Your task to perform on an android device: delete browsing data in the chrome app Image 0: 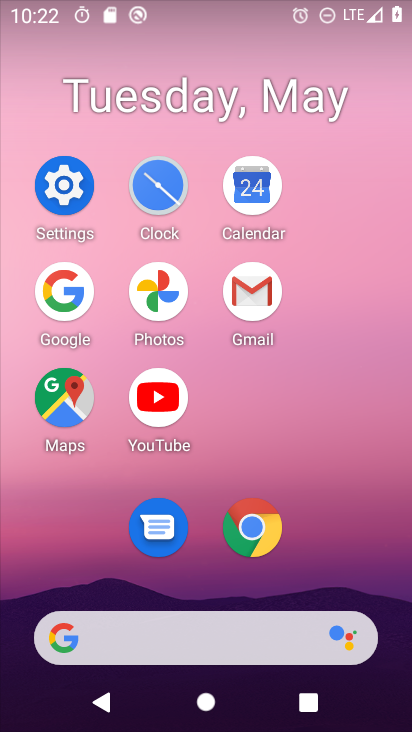
Step 0: click (261, 528)
Your task to perform on an android device: delete browsing data in the chrome app Image 1: 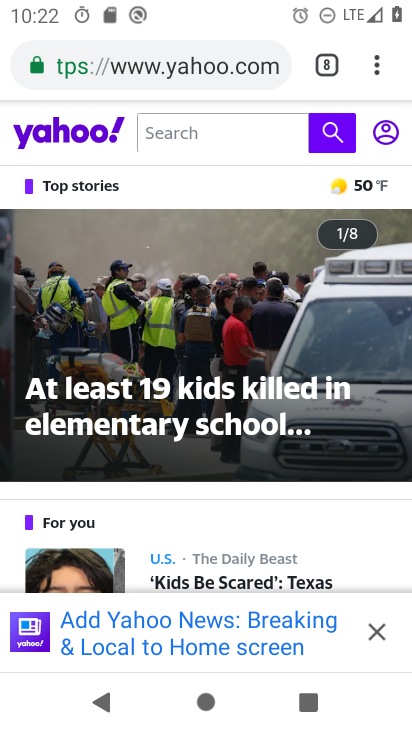
Step 1: click (383, 72)
Your task to perform on an android device: delete browsing data in the chrome app Image 2: 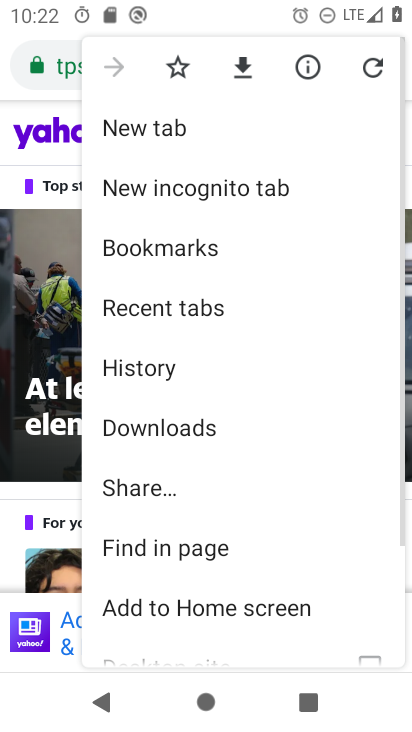
Step 2: drag from (219, 526) to (201, 238)
Your task to perform on an android device: delete browsing data in the chrome app Image 3: 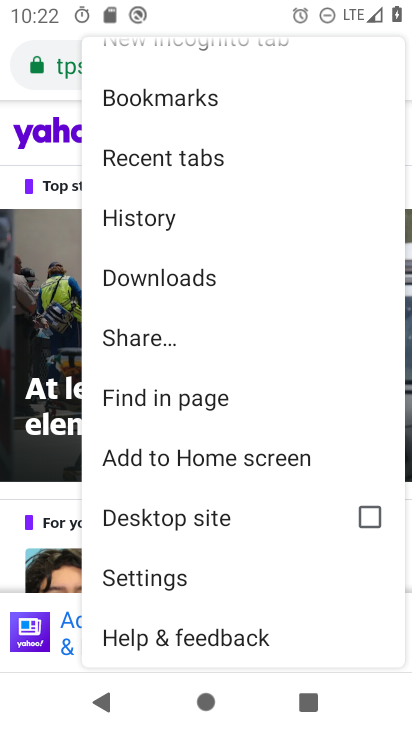
Step 3: drag from (245, 603) to (275, 326)
Your task to perform on an android device: delete browsing data in the chrome app Image 4: 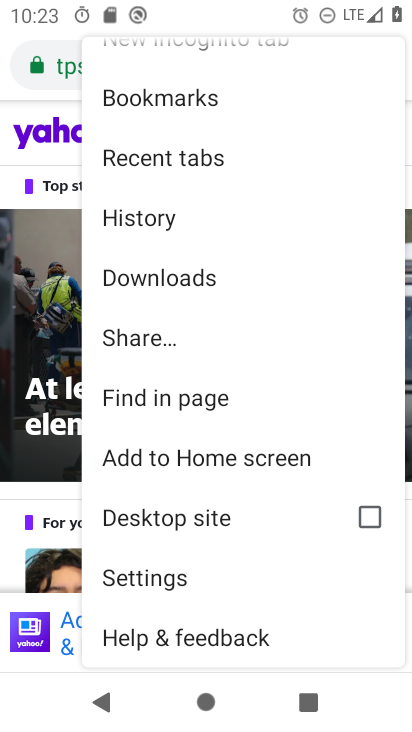
Step 4: click (181, 588)
Your task to perform on an android device: delete browsing data in the chrome app Image 5: 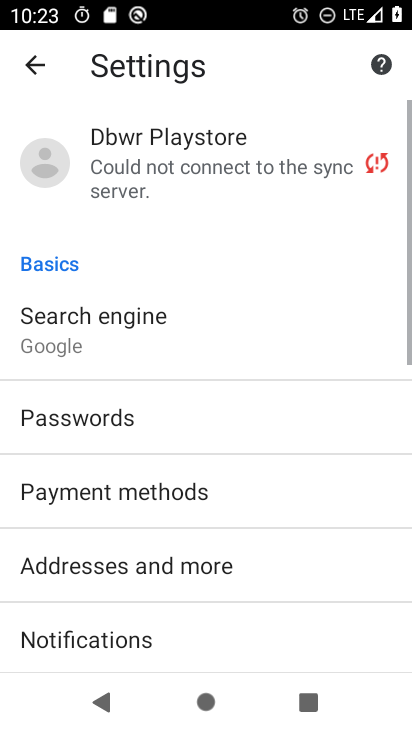
Step 5: drag from (181, 588) to (270, 286)
Your task to perform on an android device: delete browsing data in the chrome app Image 6: 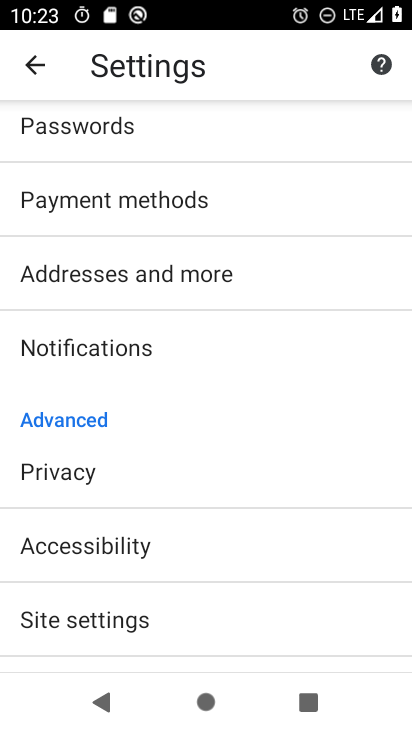
Step 6: drag from (182, 605) to (233, 205)
Your task to perform on an android device: delete browsing data in the chrome app Image 7: 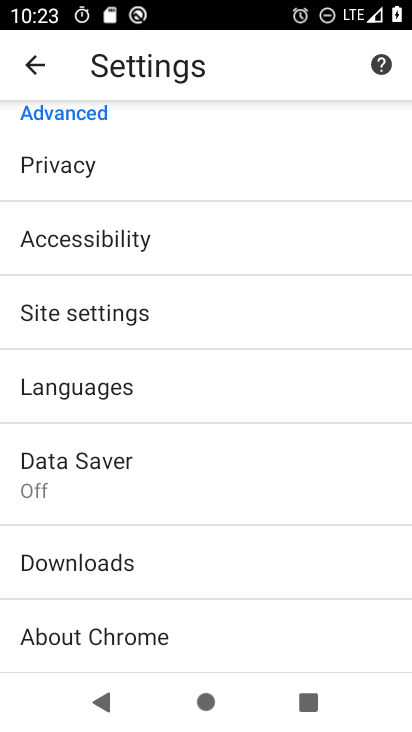
Step 7: drag from (192, 601) to (264, 241)
Your task to perform on an android device: delete browsing data in the chrome app Image 8: 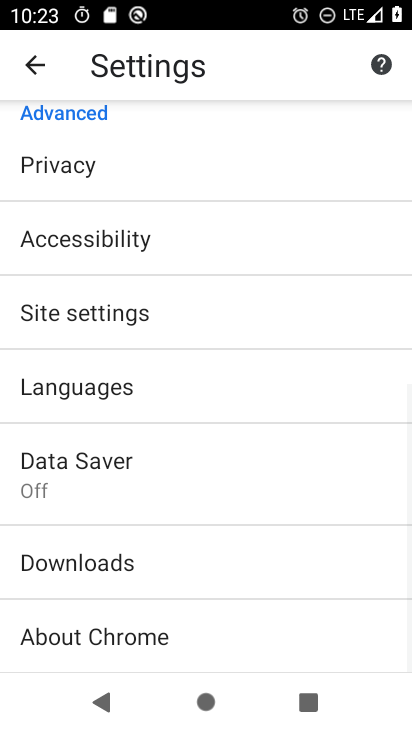
Step 8: drag from (179, 522) to (192, 143)
Your task to perform on an android device: delete browsing data in the chrome app Image 9: 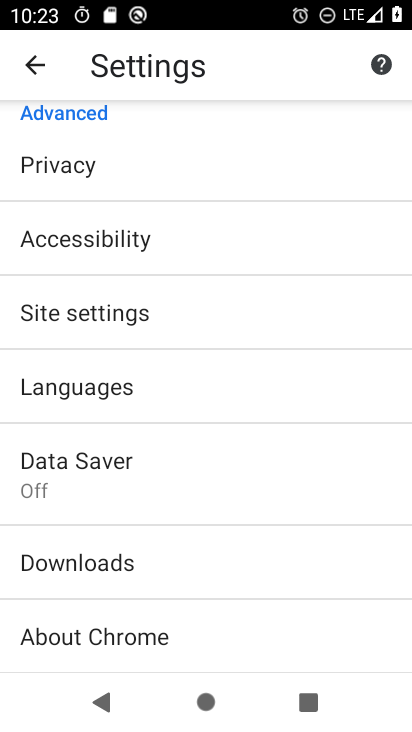
Step 9: click (235, 174)
Your task to perform on an android device: delete browsing data in the chrome app Image 10: 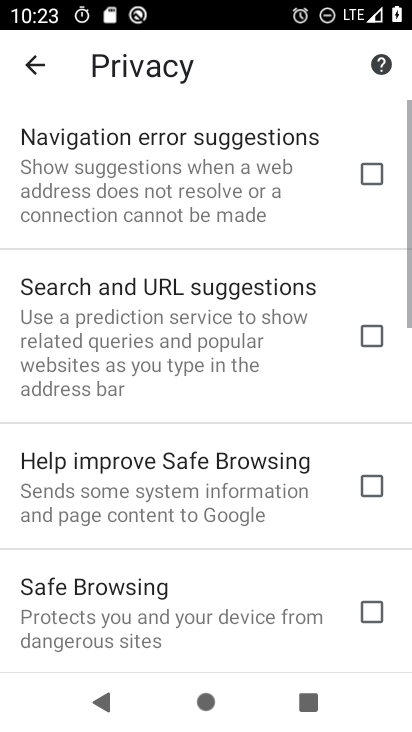
Step 10: drag from (126, 585) to (260, 61)
Your task to perform on an android device: delete browsing data in the chrome app Image 11: 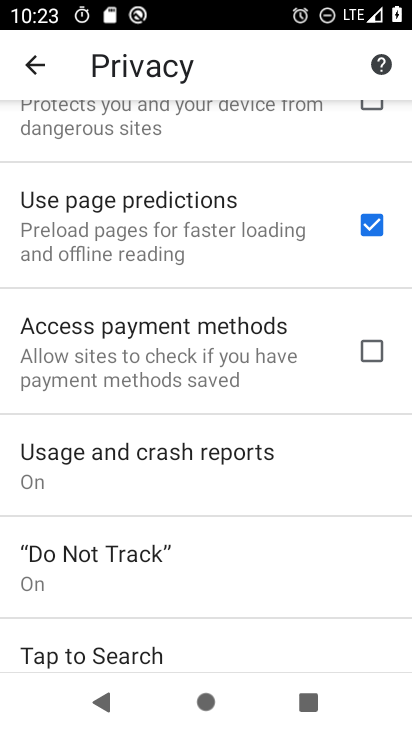
Step 11: drag from (218, 567) to (255, 175)
Your task to perform on an android device: delete browsing data in the chrome app Image 12: 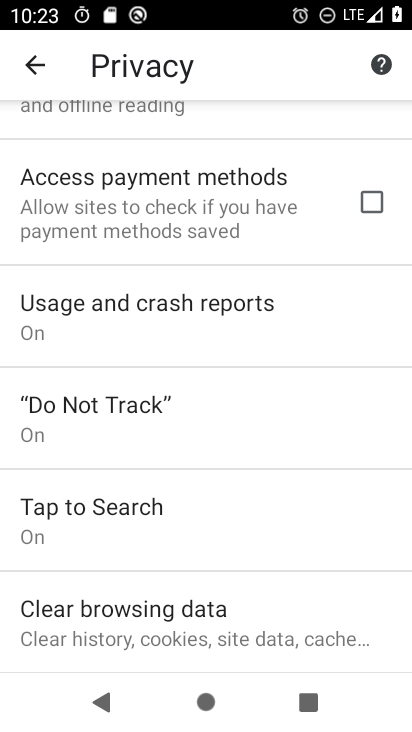
Step 12: click (218, 606)
Your task to perform on an android device: delete browsing data in the chrome app Image 13: 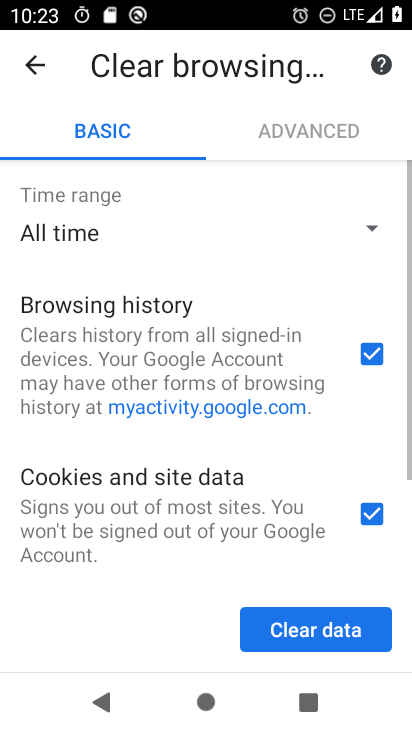
Step 13: drag from (258, 519) to (270, 217)
Your task to perform on an android device: delete browsing data in the chrome app Image 14: 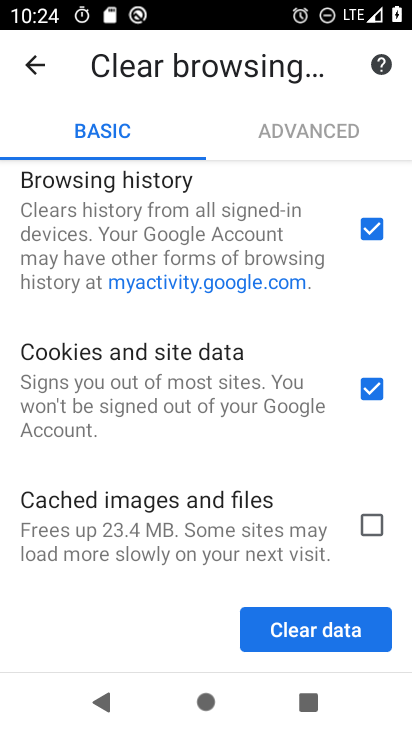
Step 14: click (324, 620)
Your task to perform on an android device: delete browsing data in the chrome app Image 15: 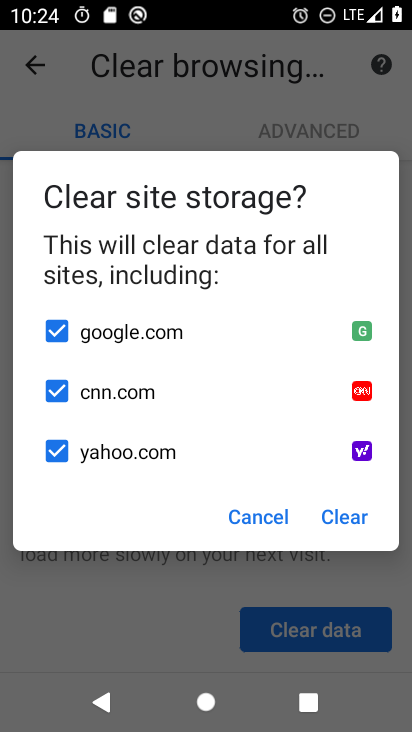
Step 15: click (364, 503)
Your task to perform on an android device: delete browsing data in the chrome app Image 16: 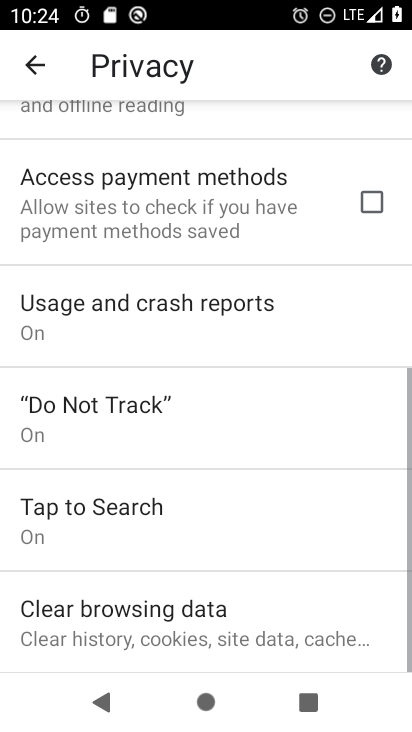
Step 16: task complete